Your task to perform on an android device: open sync settings in chrome Image 0: 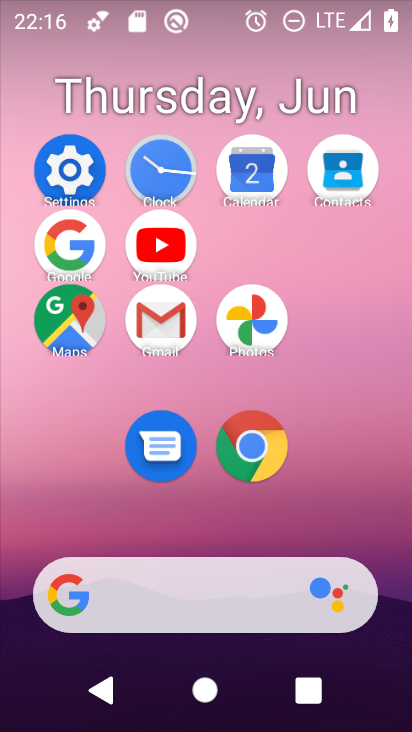
Step 0: click (260, 449)
Your task to perform on an android device: open sync settings in chrome Image 1: 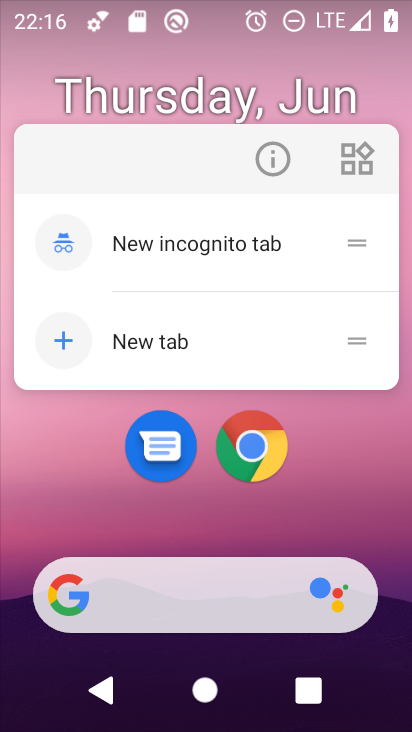
Step 1: click (261, 454)
Your task to perform on an android device: open sync settings in chrome Image 2: 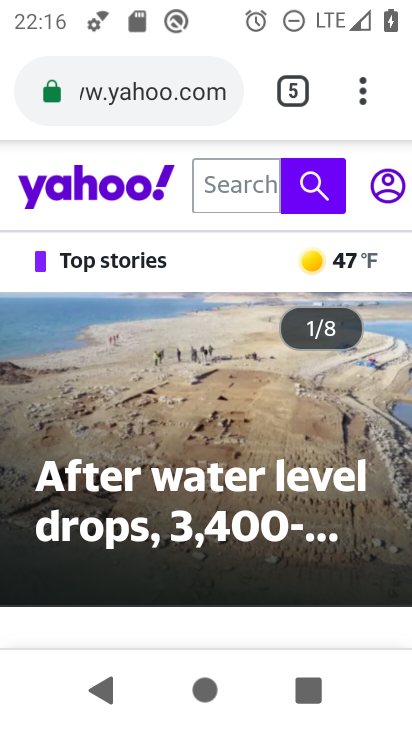
Step 2: click (368, 75)
Your task to perform on an android device: open sync settings in chrome Image 3: 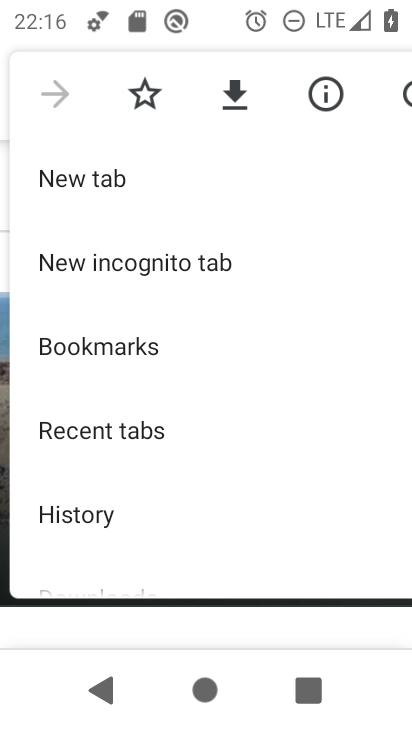
Step 3: drag from (328, 552) to (317, 173)
Your task to perform on an android device: open sync settings in chrome Image 4: 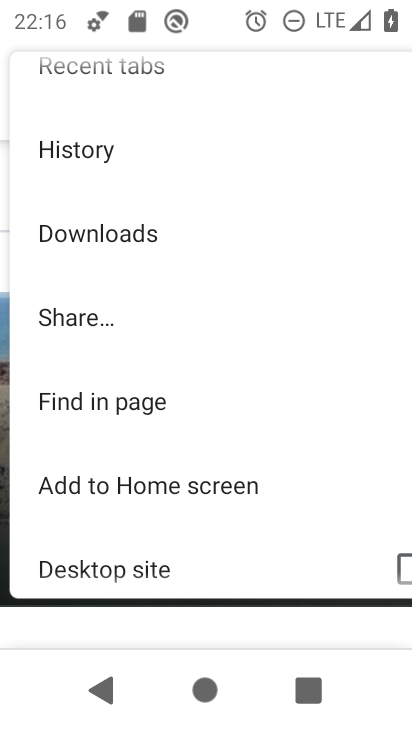
Step 4: drag from (221, 512) to (197, 186)
Your task to perform on an android device: open sync settings in chrome Image 5: 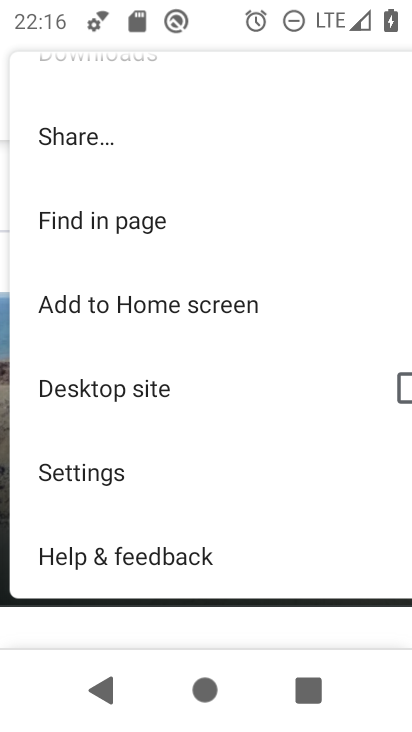
Step 5: click (194, 481)
Your task to perform on an android device: open sync settings in chrome Image 6: 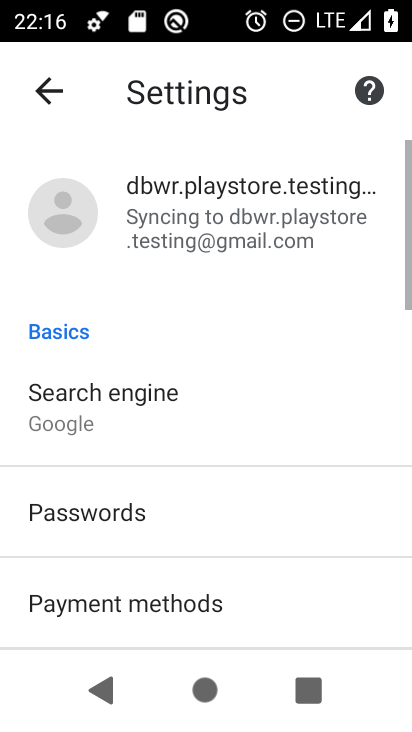
Step 6: drag from (187, 503) to (181, 168)
Your task to perform on an android device: open sync settings in chrome Image 7: 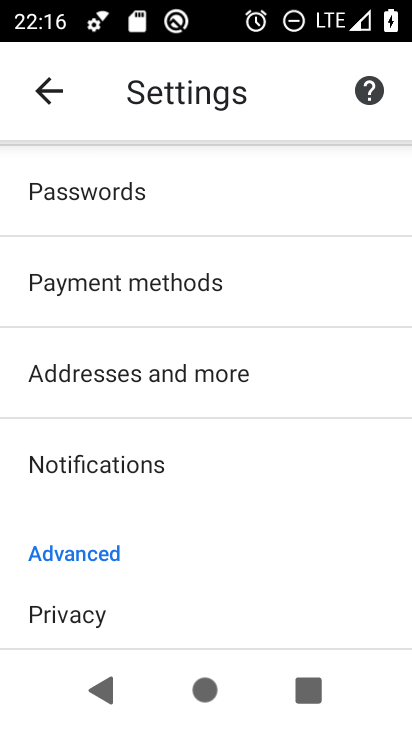
Step 7: drag from (212, 543) to (263, 216)
Your task to perform on an android device: open sync settings in chrome Image 8: 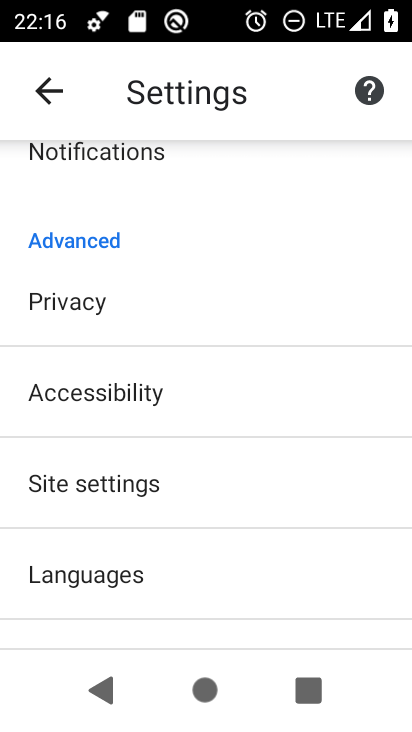
Step 8: click (205, 491)
Your task to perform on an android device: open sync settings in chrome Image 9: 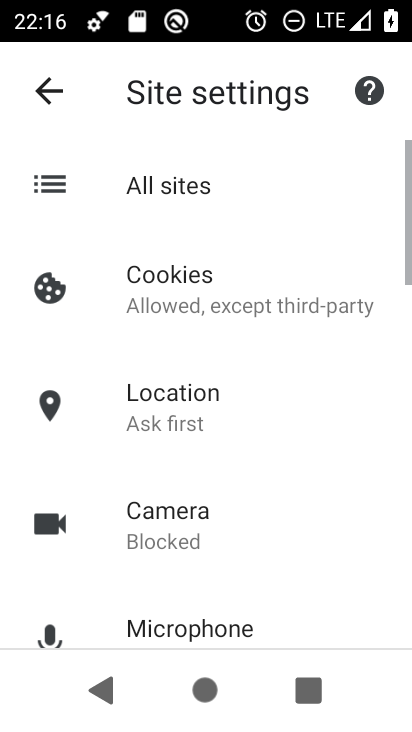
Step 9: drag from (247, 593) to (224, 202)
Your task to perform on an android device: open sync settings in chrome Image 10: 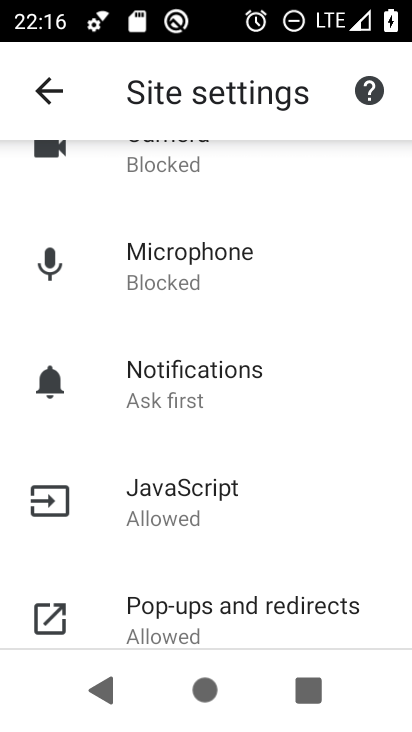
Step 10: drag from (284, 605) to (313, 264)
Your task to perform on an android device: open sync settings in chrome Image 11: 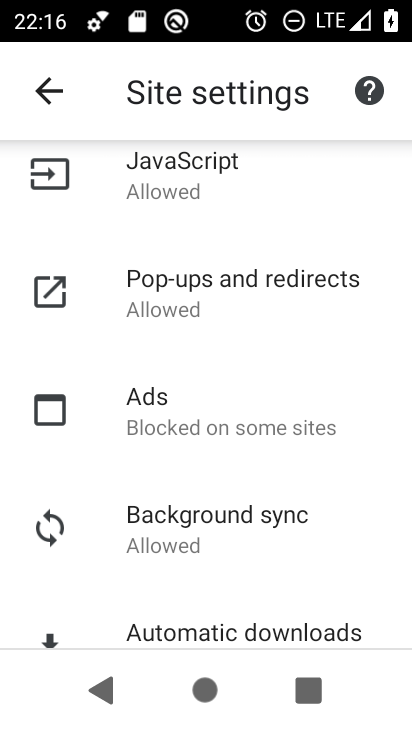
Step 11: drag from (316, 548) to (329, 241)
Your task to perform on an android device: open sync settings in chrome Image 12: 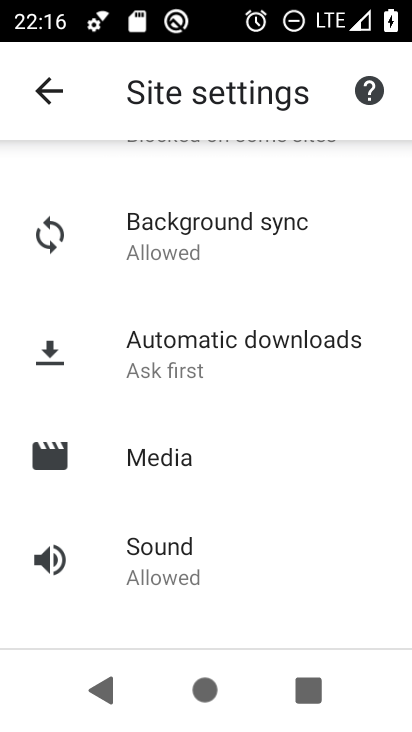
Step 12: click (274, 247)
Your task to perform on an android device: open sync settings in chrome Image 13: 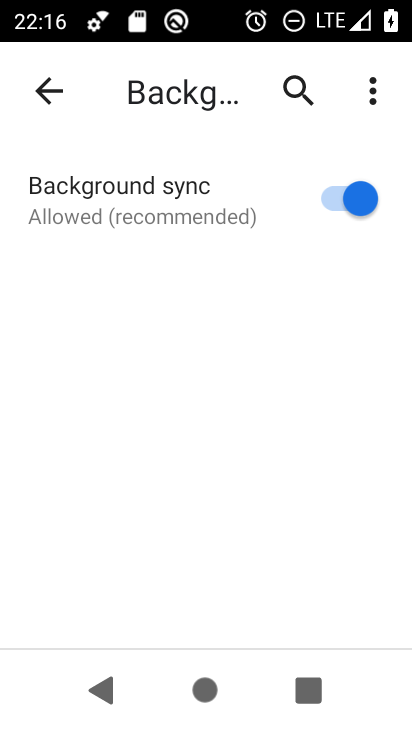
Step 13: task complete